Your task to perform on an android device: Open Chrome and go to settings Image 0: 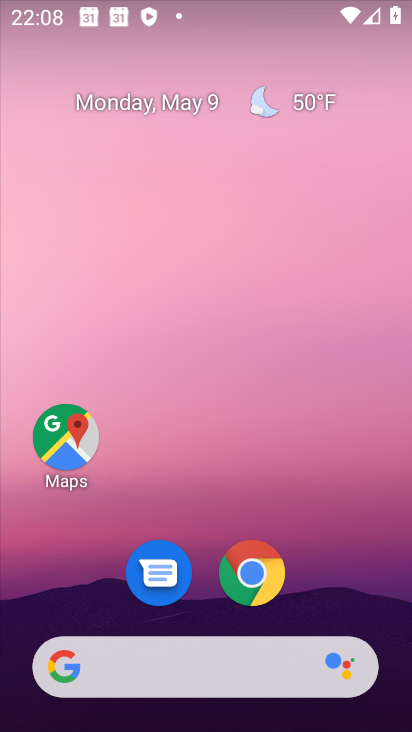
Step 0: click (253, 575)
Your task to perform on an android device: Open Chrome and go to settings Image 1: 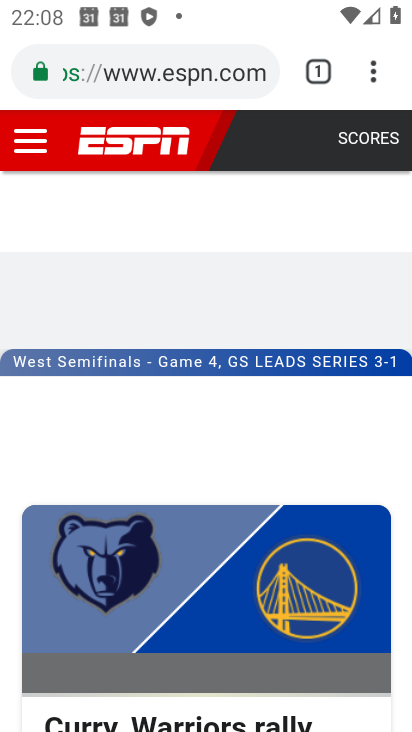
Step 1: task complete